Your task to perform on an android device: open a bookmark in the chrome app Image 0: 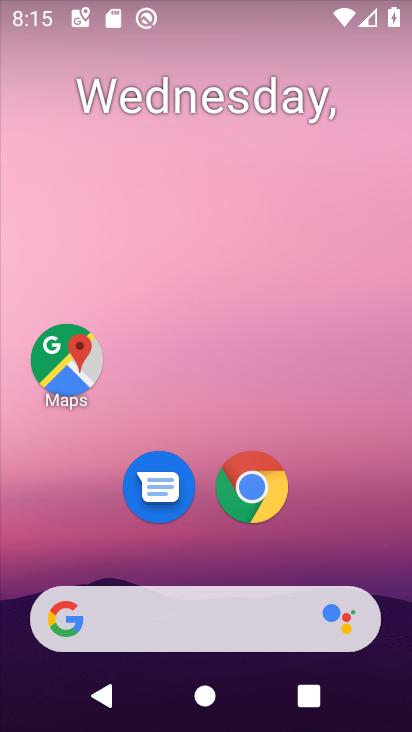
Step 0: click (252, 486)
Your task to perform on an android device: open a bookmark in the chrome app Image 1: 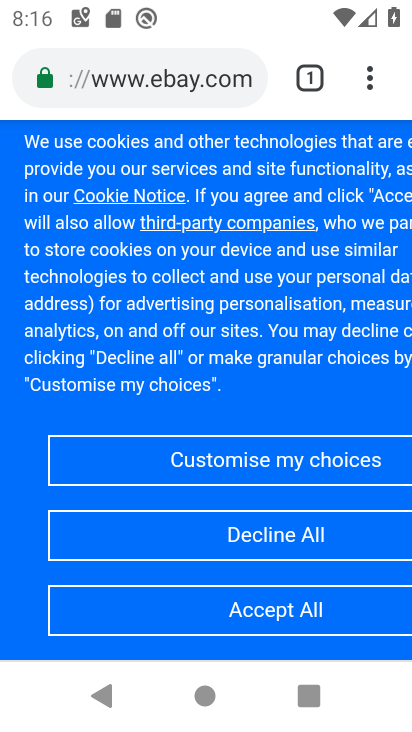
Step 1: click (373, 79)
Your task to perform on an android device: open a bookmark in the chrome app Image 2: 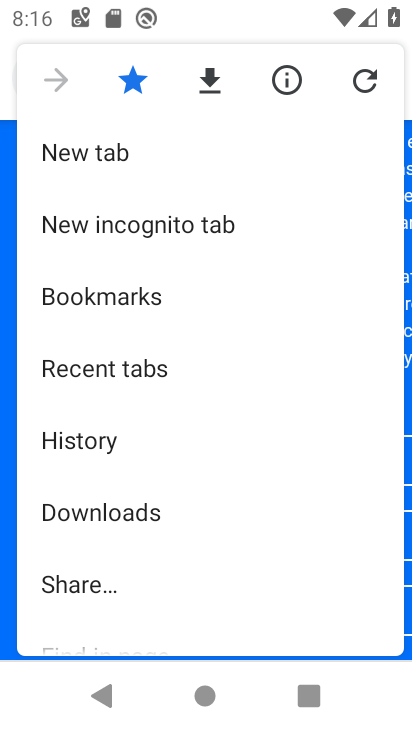
Step 2: drag from (166, 546) to (180, 449)
Your task to perform on an android device: open a bookmark in the chrome app Image 3: 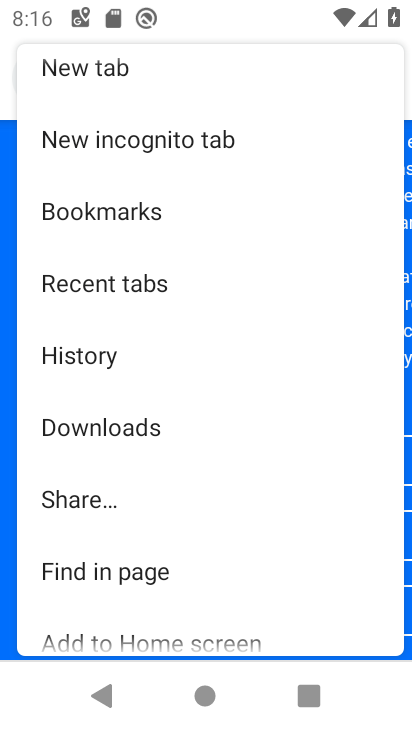
Step 3: click (127, 217)
Your task to perform on an android device: open a bookmark in the chrome app Image 4: 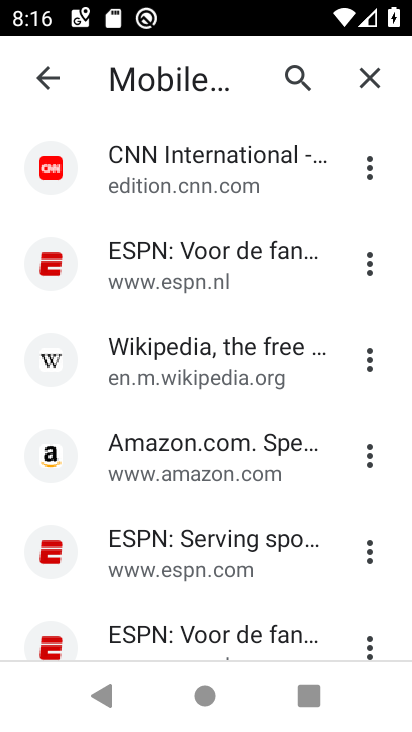
Step 4: task complete